Your task to perform on an android device: toggle priority inbox in the gmail app Image 0: 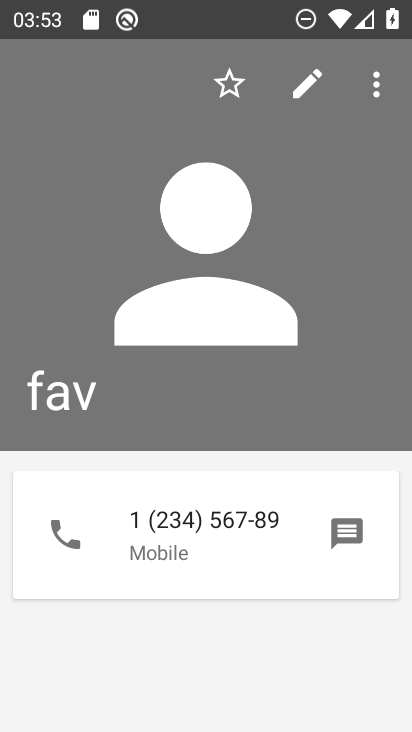
Step 0: press home button
Your task to perform on an android device: toggle priority inbox in the gmail app Image 1: 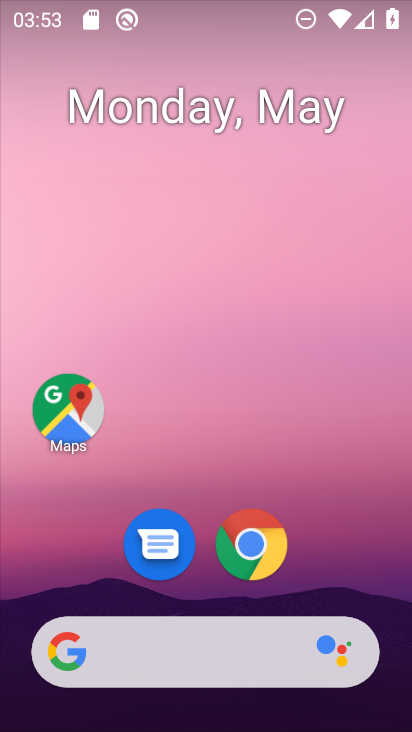
Step 1: drag from (368, 577) to (378, 235)
Your task to perform on an android device: toggle priority inbox in the gmail app Image 2: 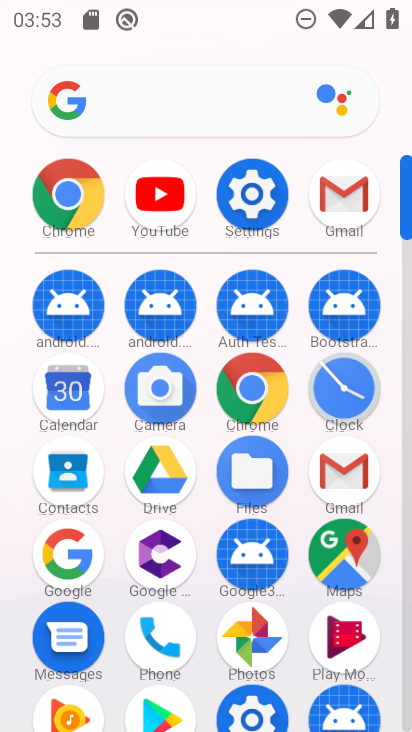
Step 2: click (328, 482)
Your task to perform on an android device: toggle priority inbox in the gmail app Image 3: 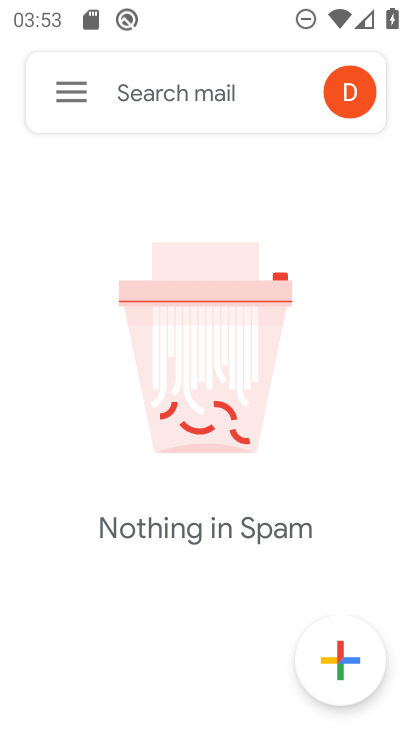
Step 3: click (73, 110)
Your task to perform on an android device: toggle priority inbox in the gmail app Image 4: 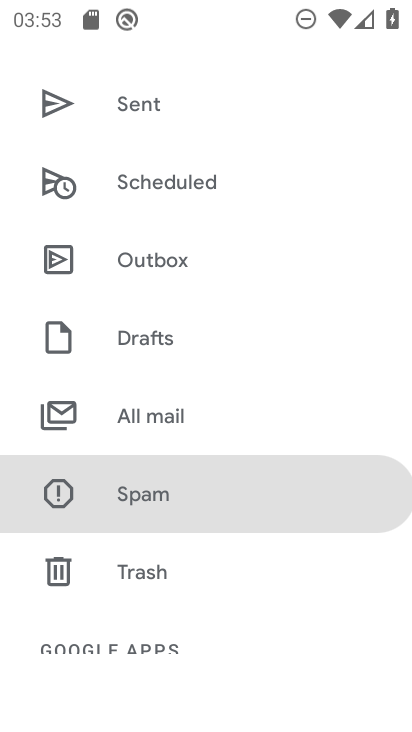
Step 4: drag from (312, 300) to (302, 418)
Your task to perform on an android device: toggle priority inbox in the gmail app Image 5: 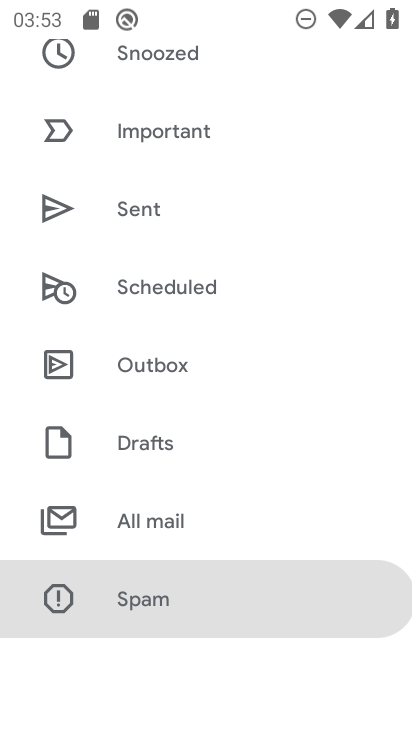
Step 5: drag from (299, 472) to (301, 337)
Your task to perform on an android device: toggle priority inbox in the gmail app Image 6: 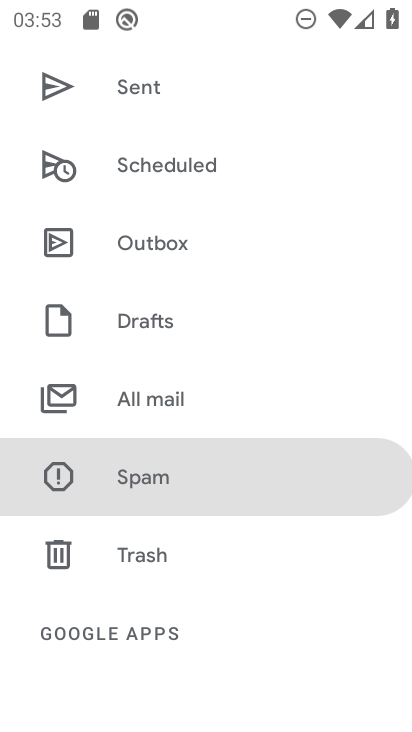
Step 6: drag from (292, 534) to (287, 387)
Your task to perform on an android device: toggle priority inbox in the gmail app Image 7: 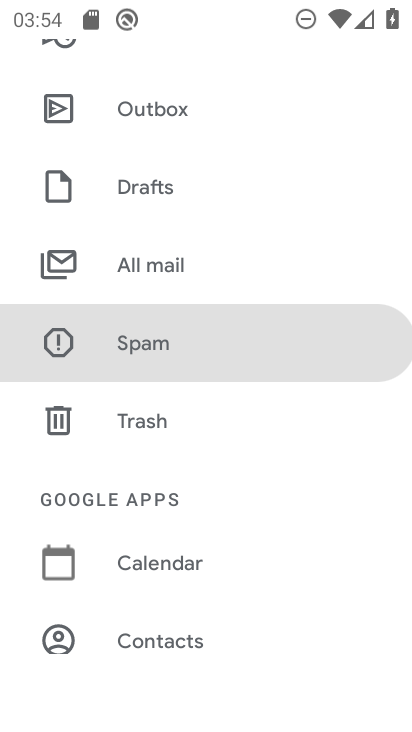
Step 7: drag from (286, 532) to (295, 433)
Your task to perform on an android device: toggle priority inbox in the gmail app Image 8: 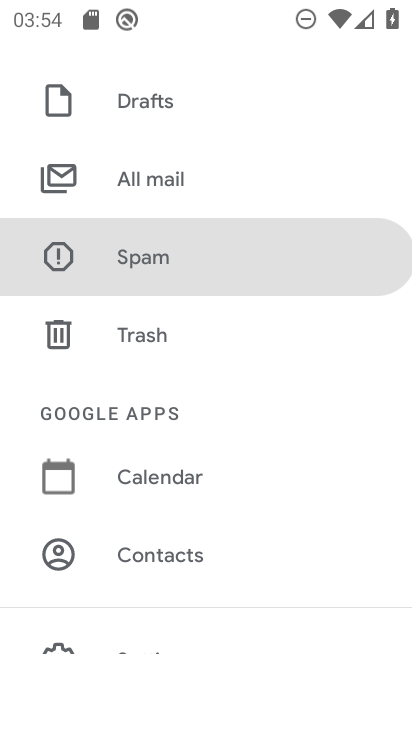
Step 8: drag from (293, 586) to (304, 439)
Your task to perform on an android device: toggle priority inbox in the gmail app Image 9: 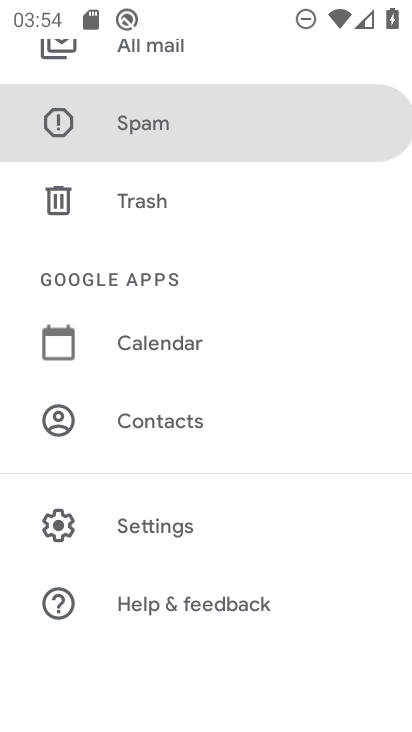
Step 9: click (181, 531)
Your task to perform on an android device: toggle priority inbox in the gmail app Image 10: 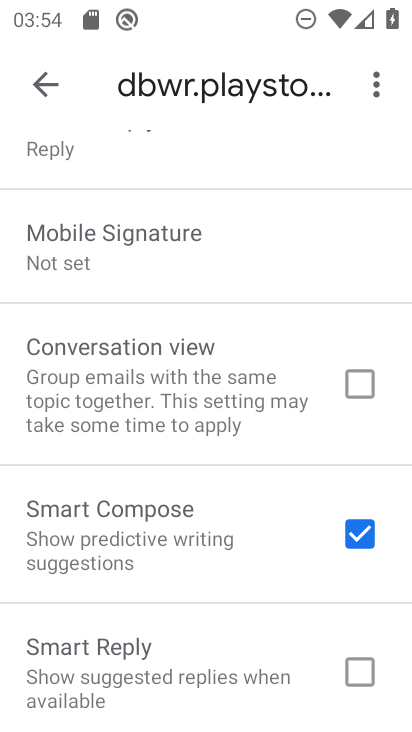
Step 10: drag from (252, 554) to (267, 442)
Your task to perform on an android device: toggle priority inbox in the gmail app Image 11: 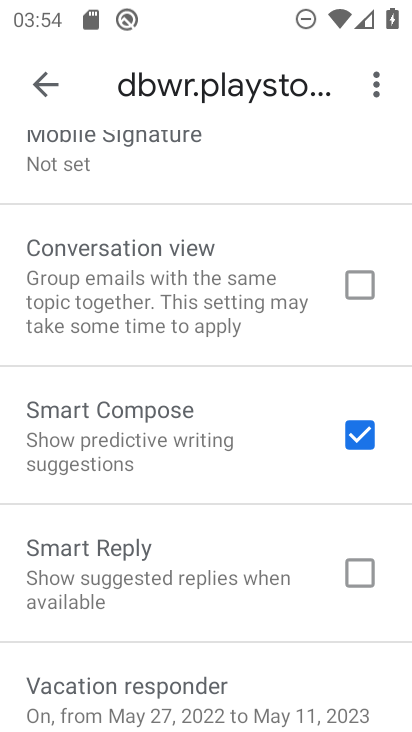
Step 11: drag from (271, 237) to (284, 368)
Your task to perform on an android device: toggle priority inbox in the gmail app Image 12: 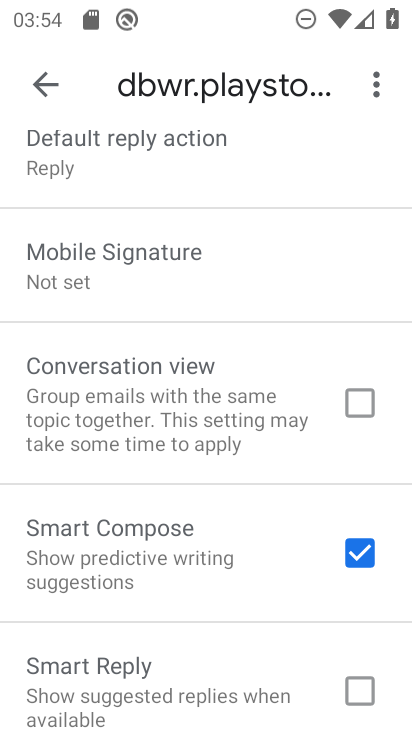
Step 12: drag from (267, 232) to (260, 358)
Your task to perform on an android device: toggle priority inbox in the gmail app Image 13: 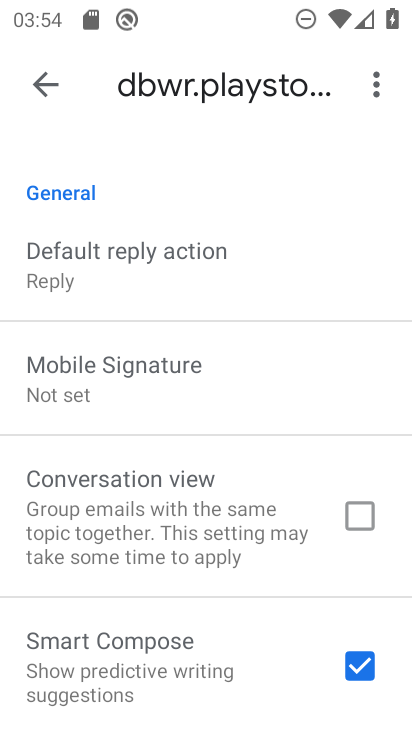
Step 13: drag from (242, 197) to (245, 381)
Your task to perform on an android device: toggle priority inbox in the gmail app Image 14: 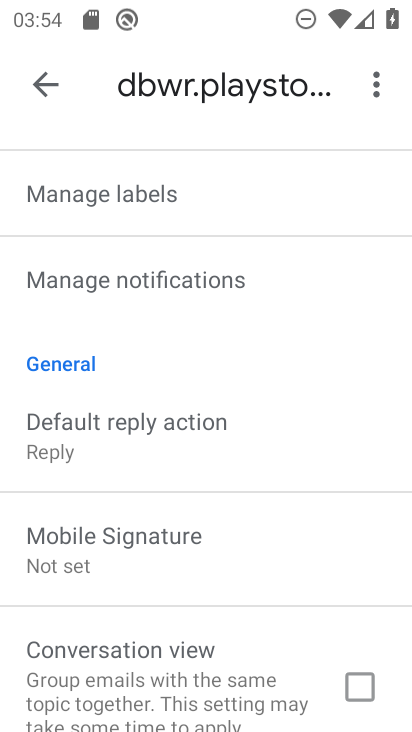
Step 14: drag from (232, 191) to (217, 372)
Your task to perform on an android device: toggle priority inbox in the gmail app Image 15: 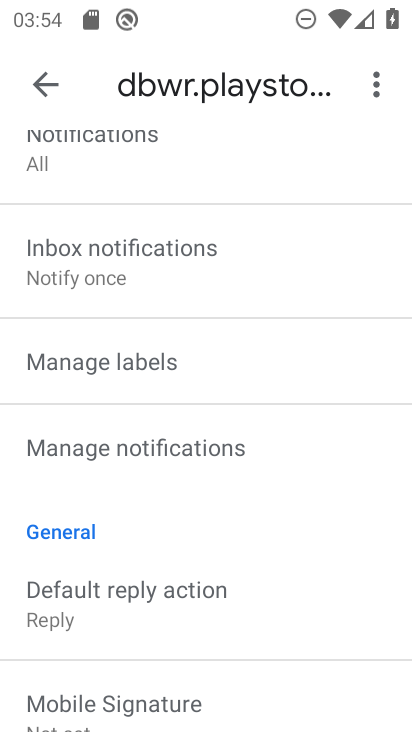
Step 15: drag from (235, 181) to (237, 333)
Your task to perform on an android device: toggle priority inbox in the gmail app Image 16: 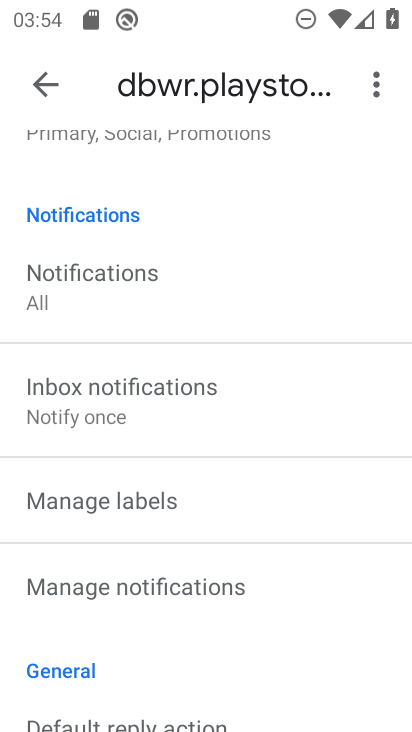
Step 16: drag from (226, 180) to (231, 329)
Your task to perform on an android device: toggle priority inbox in the gmail app Image 17: 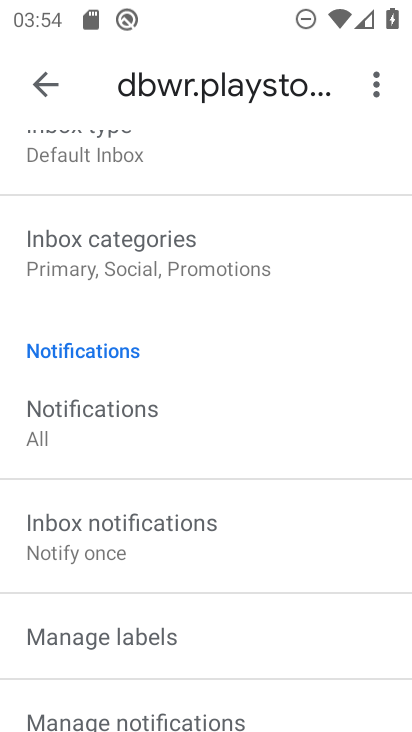
Step 17: drag from (228, 163) to (203, 299)
Your task to perform on an android device: toggle priority inbox in the gmail app Image 18: 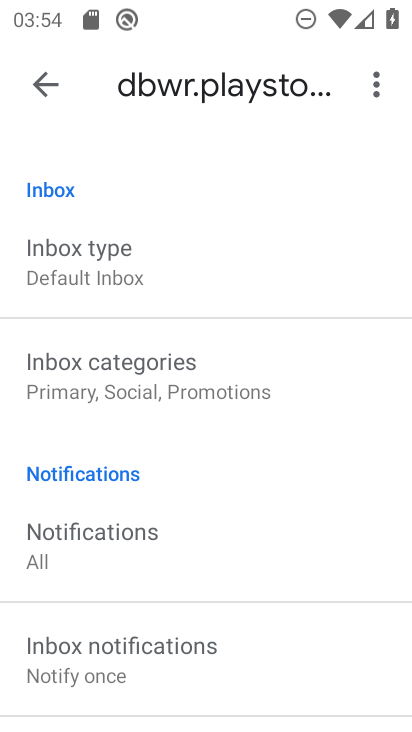
Step 18: click (108, 277)
Your task to perform on an android device: toggle priority inbox in the gmail app Image 19: 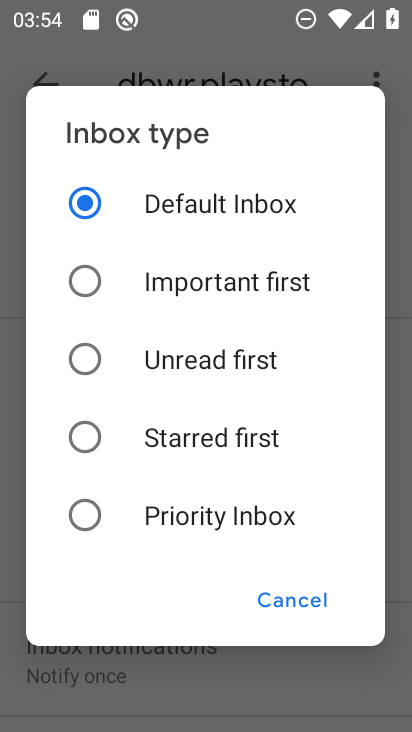
Step 19: click (180, 521)
Your task to perform on an android device: toggle priority inbox in the gmail app Image 20: 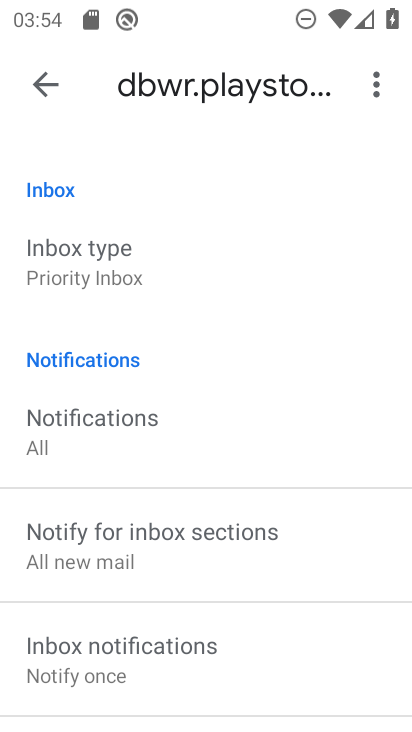
Step 20: task complete